Your task to perform on an android device: Open battery settings Image 0: 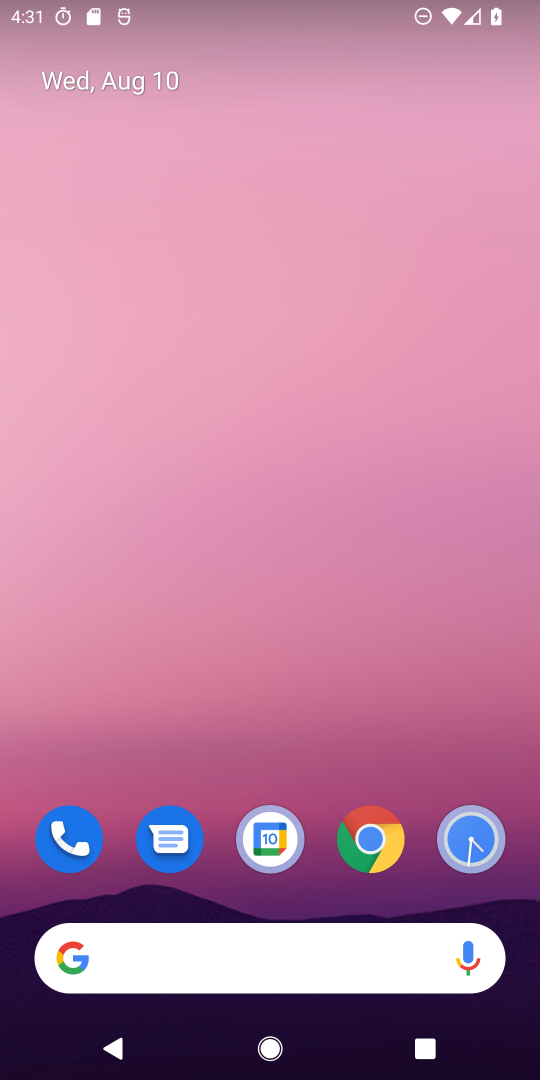
Step 0: drag from (43, 1052) to (227, 219)
Your task to perform on an android device: Open battery settings Image 1: 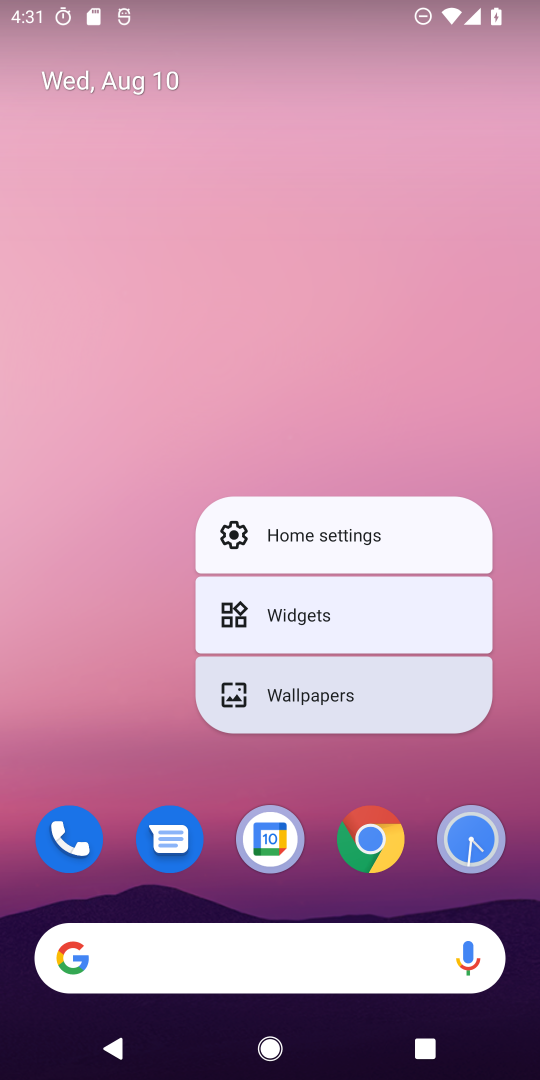
Step 1: drag from (47, 1068) to (154, 308)
Your task to perform on an android device: Open battery settings Image 2: 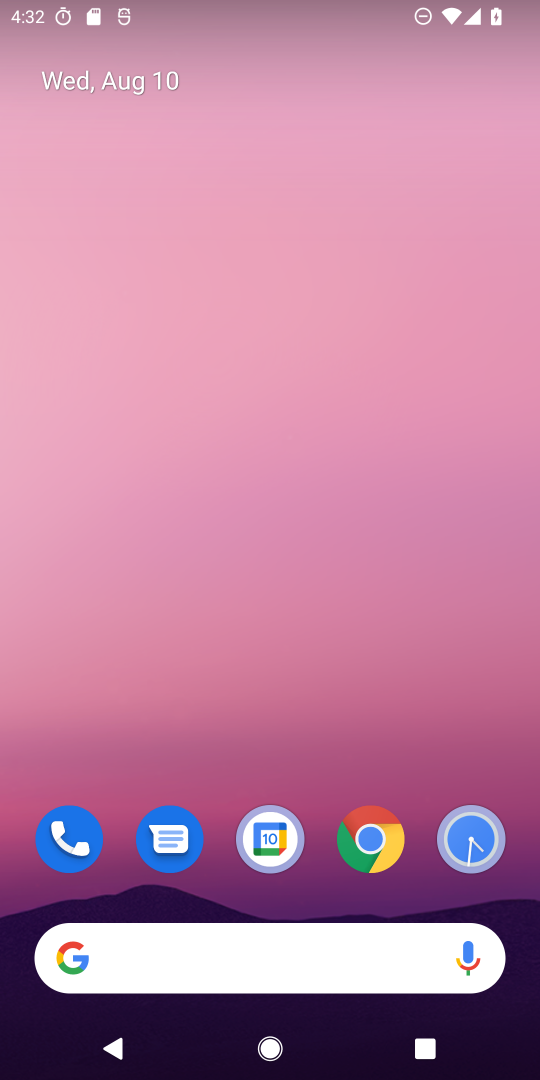
Step 2: drag from (42, 1025) to (362, 366)
Your task to perform on an android device: Open battery settings Image 3: 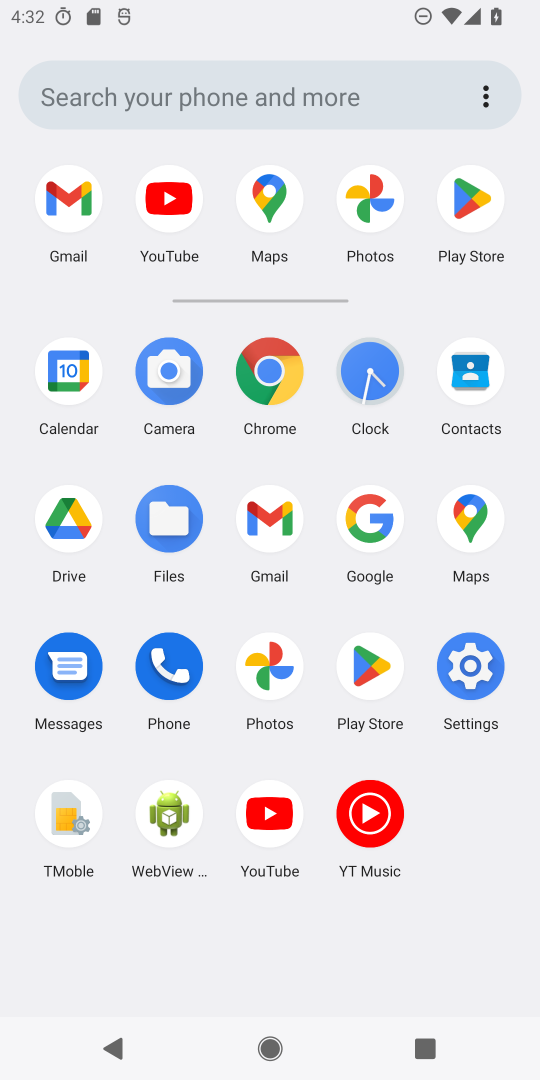
Step 3: click (470, 678)
Your task to perform on an android device: Open battery settings Image 4: 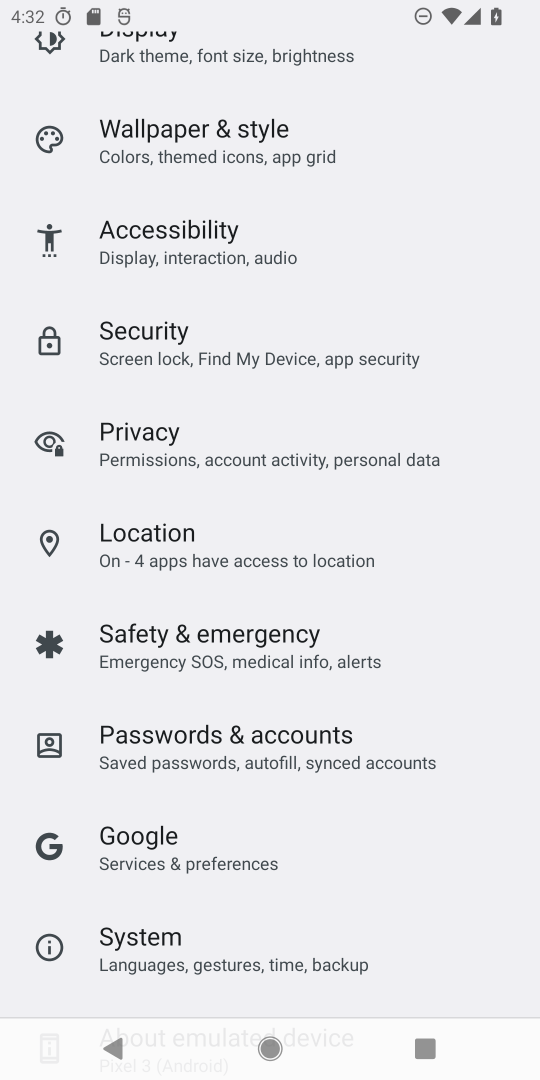
Step 4: drag from (438, 113) to (458, 560)
Your task to perform on an android device: Open battery settings Image 5: 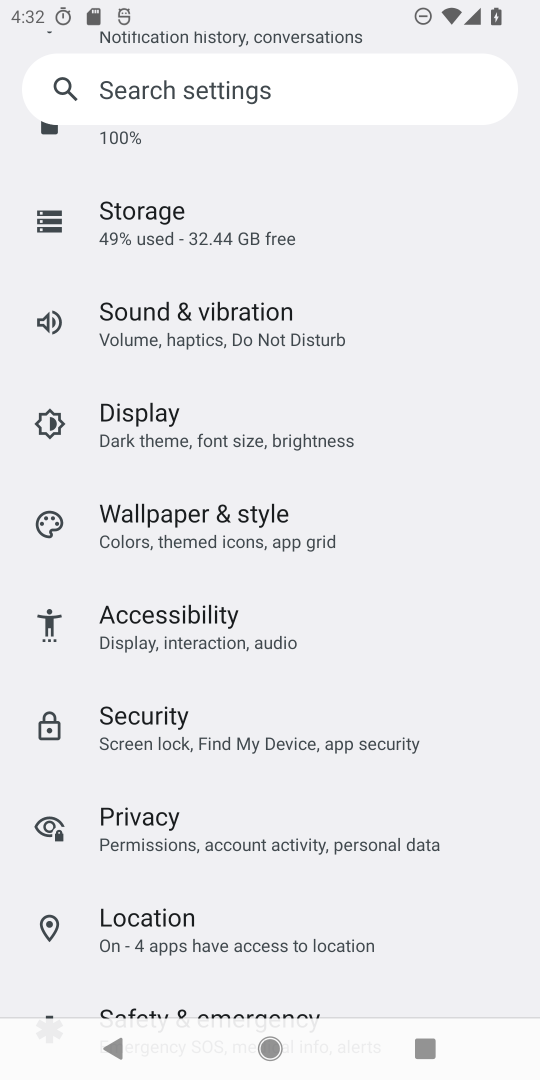
Step 5: drag from (412, 177) to (415, 905)
Your task to perform on an android device: Open battery settings Image 6: 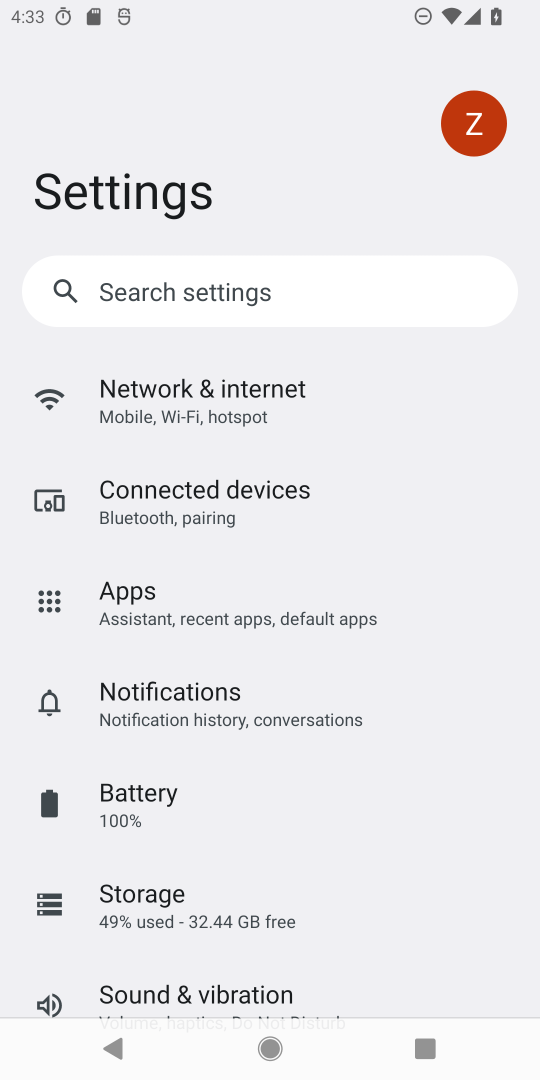
Step 6: click (153, 811)
Your task to perform on an android device: Open battery settings Image 7: 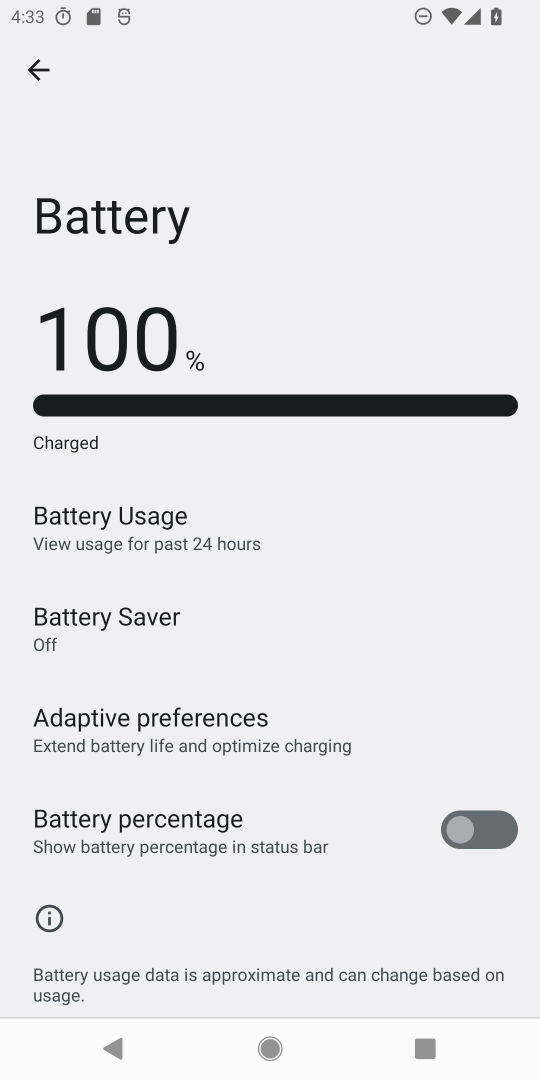
Step 7: task complete